Your task to perform on an android device: Go to CNN.com Image 0: 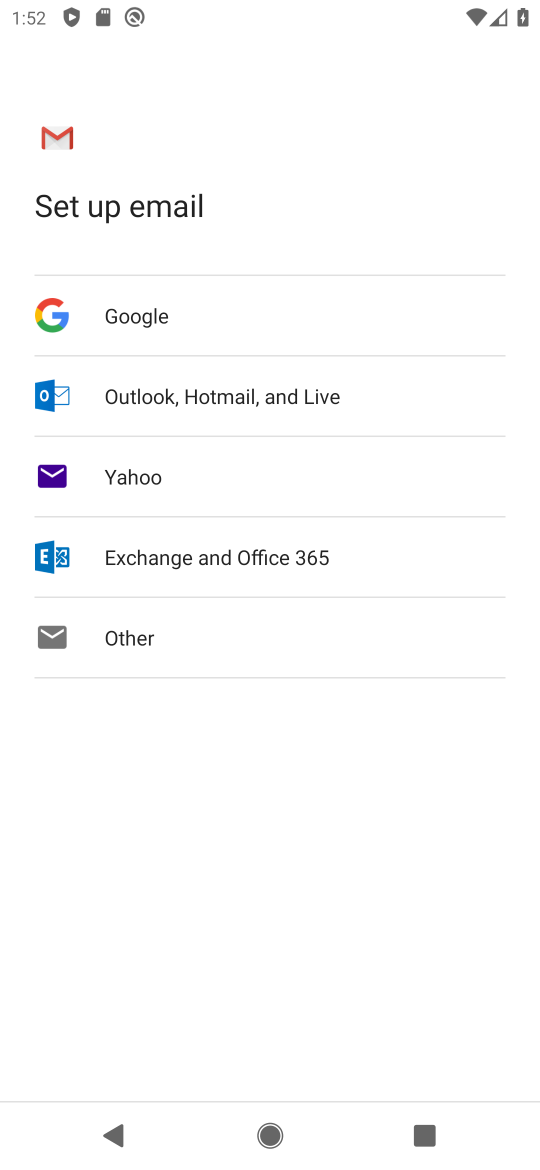
Step 0: press home button
Your task to perform on an android device: Go to CNN.com Image 1: 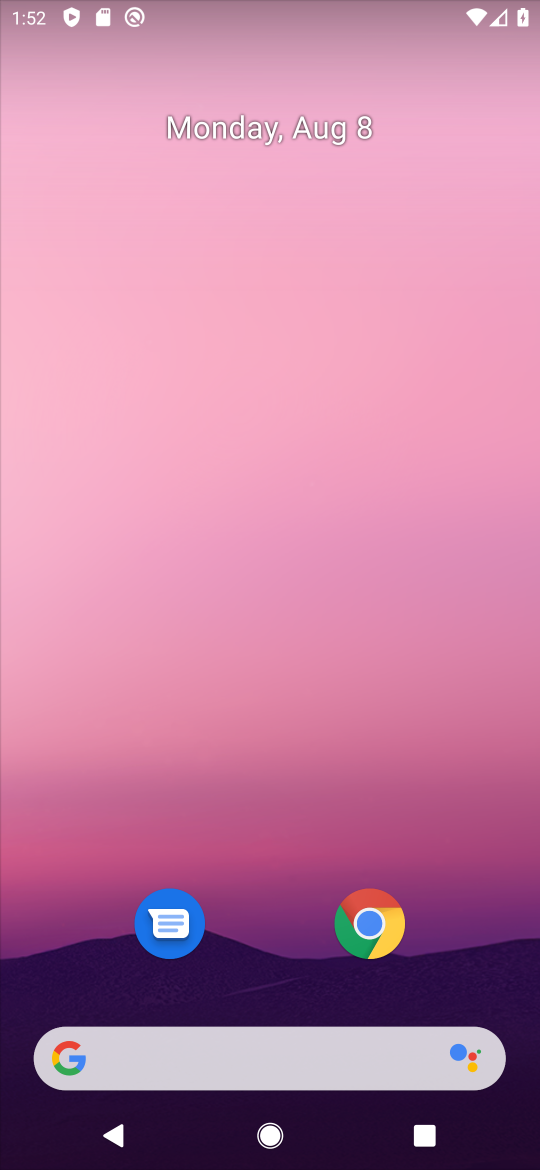
Step 1: click (355, 928)
Your task to perform on an android device: Go to CNN.com Image 2: 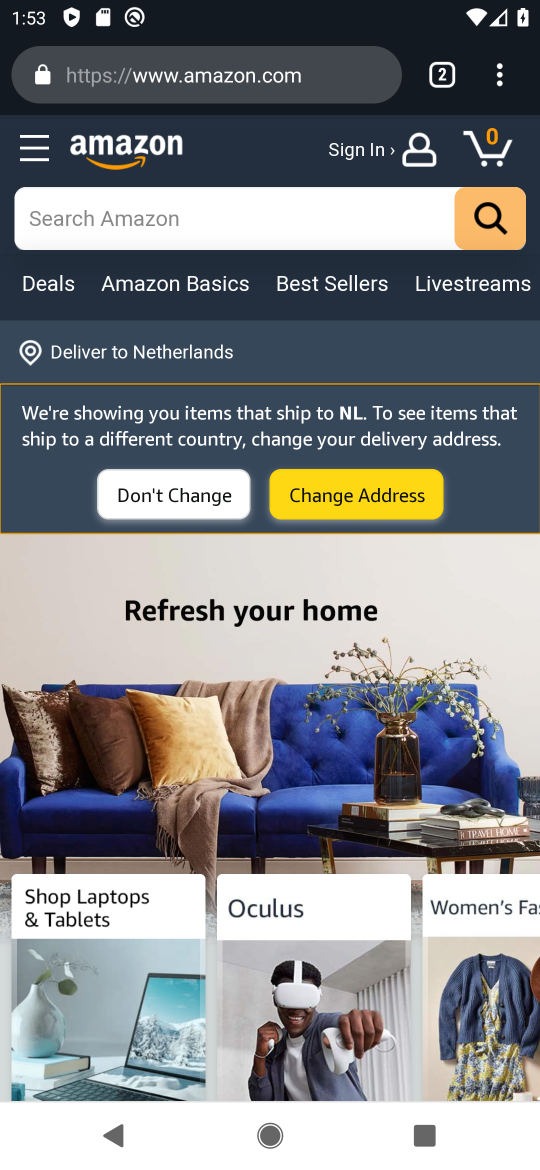
Step 2: click (290, 85)
Your task to perform on an android device: Go to CNN.com Image 3: 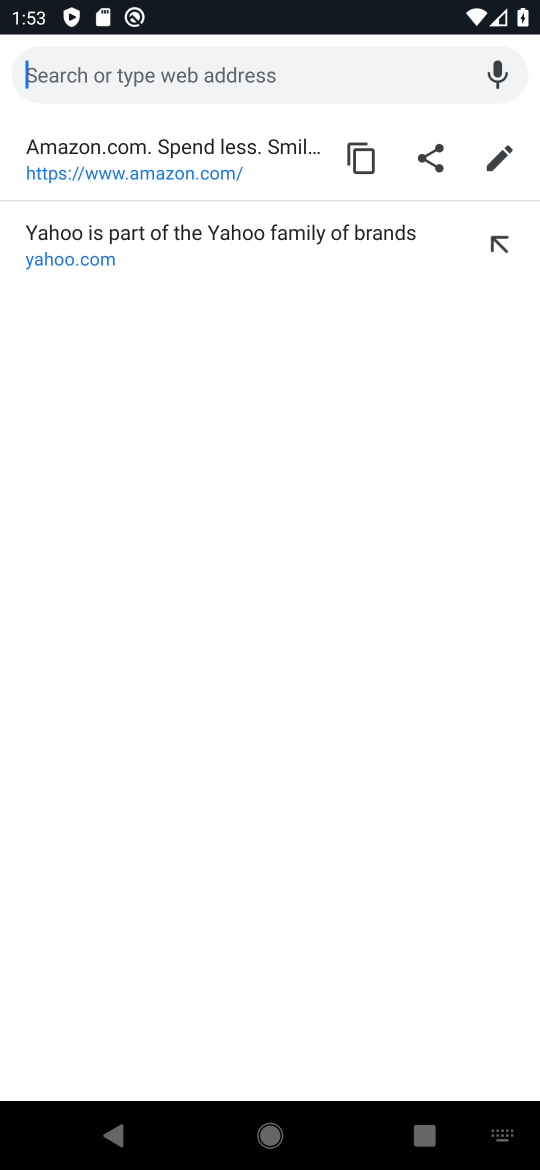
Step 3: type " CNN.com"
Your task to perform on an android device: Go to CNN.com Image 4: 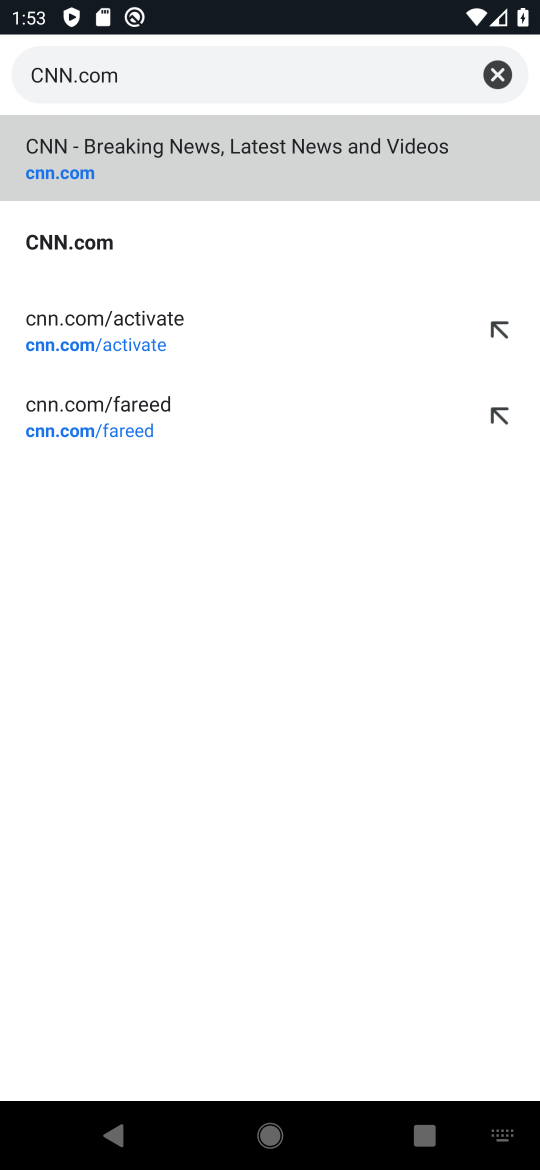
Step 4: press enter
Your task to perform on an android device: Go to CNN.com Image 5: 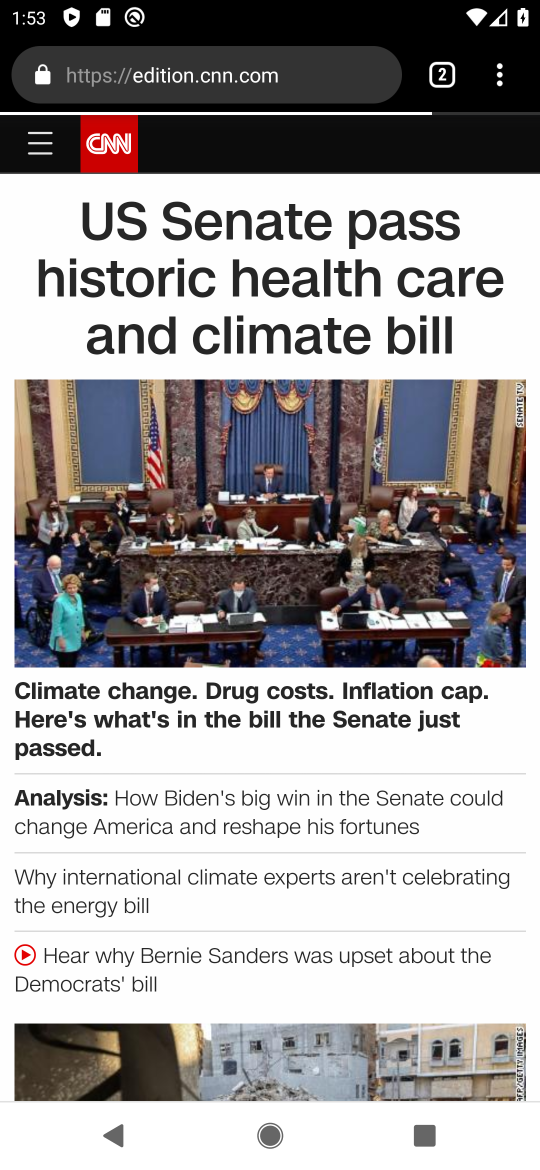
Step 5: task complete